Your task to perform on an android device: Go to sound settings Image 0: 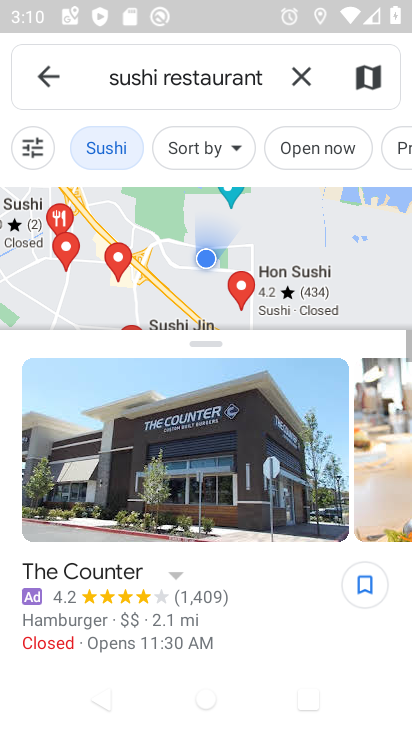
Step 0: press home button
Your task to perform on an android device: Go to sound settings Image 1: 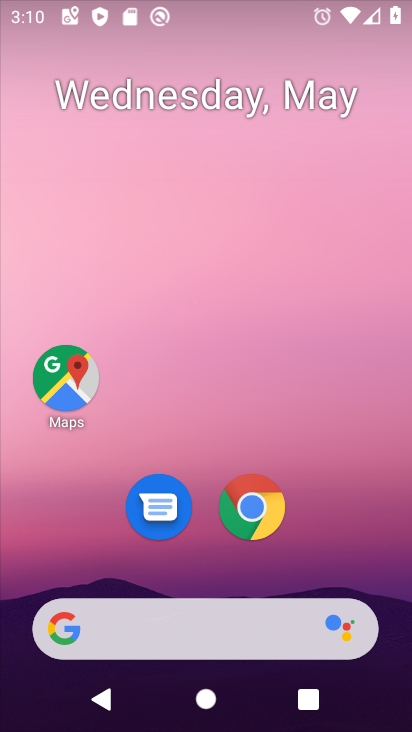
Step 1: drag from (208, 565) to (214, 105)
Your task to perform on an android device: Go to sound settings Image 2: 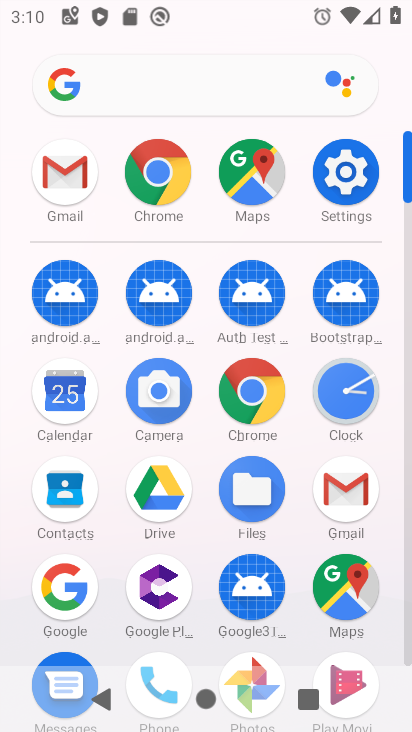
Step 2: click (345, 175)
Your task to perform on an android device: Go to sound settings Image 3: 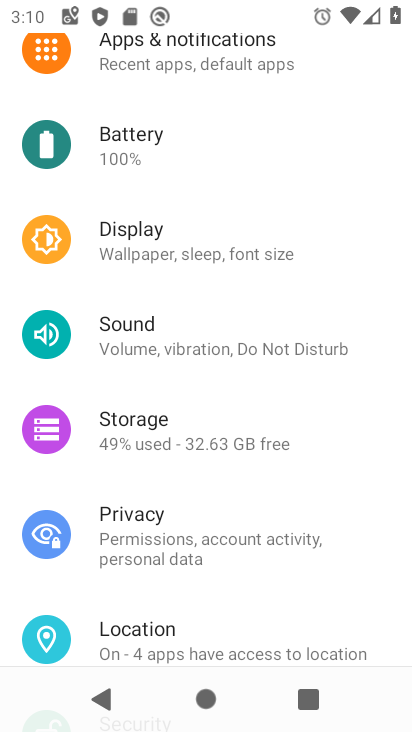
Step 3: click (182, 326)
Your task to perform on an android device: Go to sound settings Image 4: 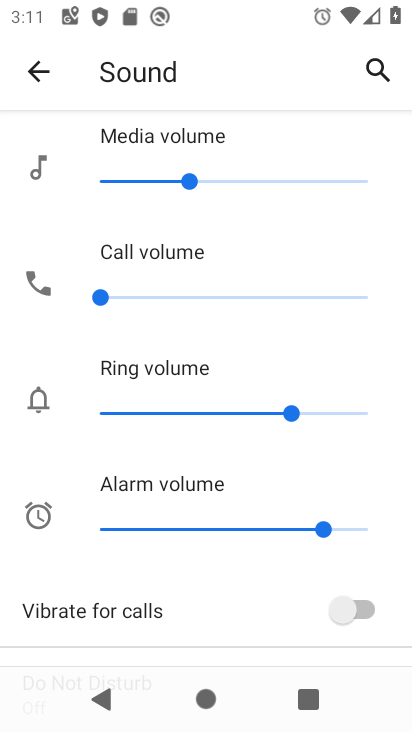
Step 4: task complete